Your task to perform on an android device: Go to internet settings Image 0: 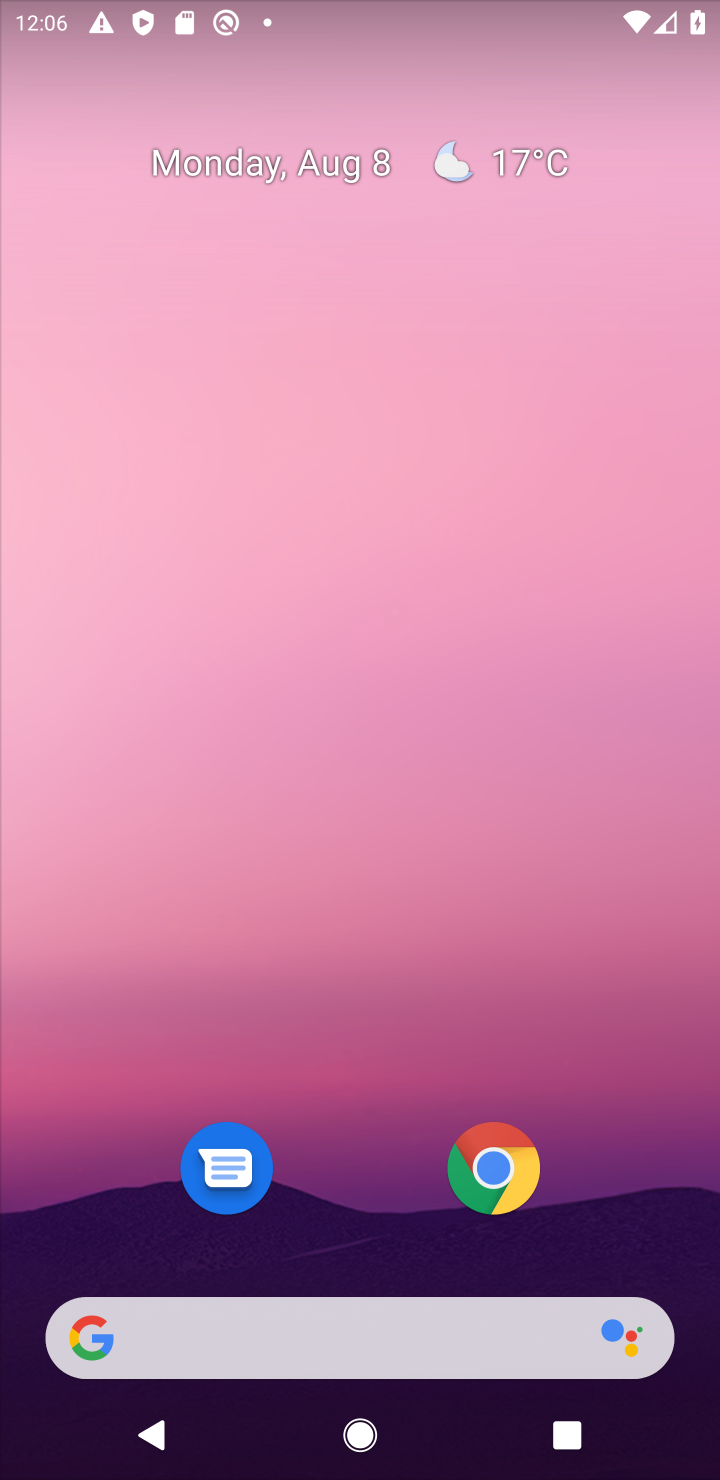
Step 0: drag from (46, 1351) to (331, 612)
Your task to perform on an android device: Go to internet settings Image 1: 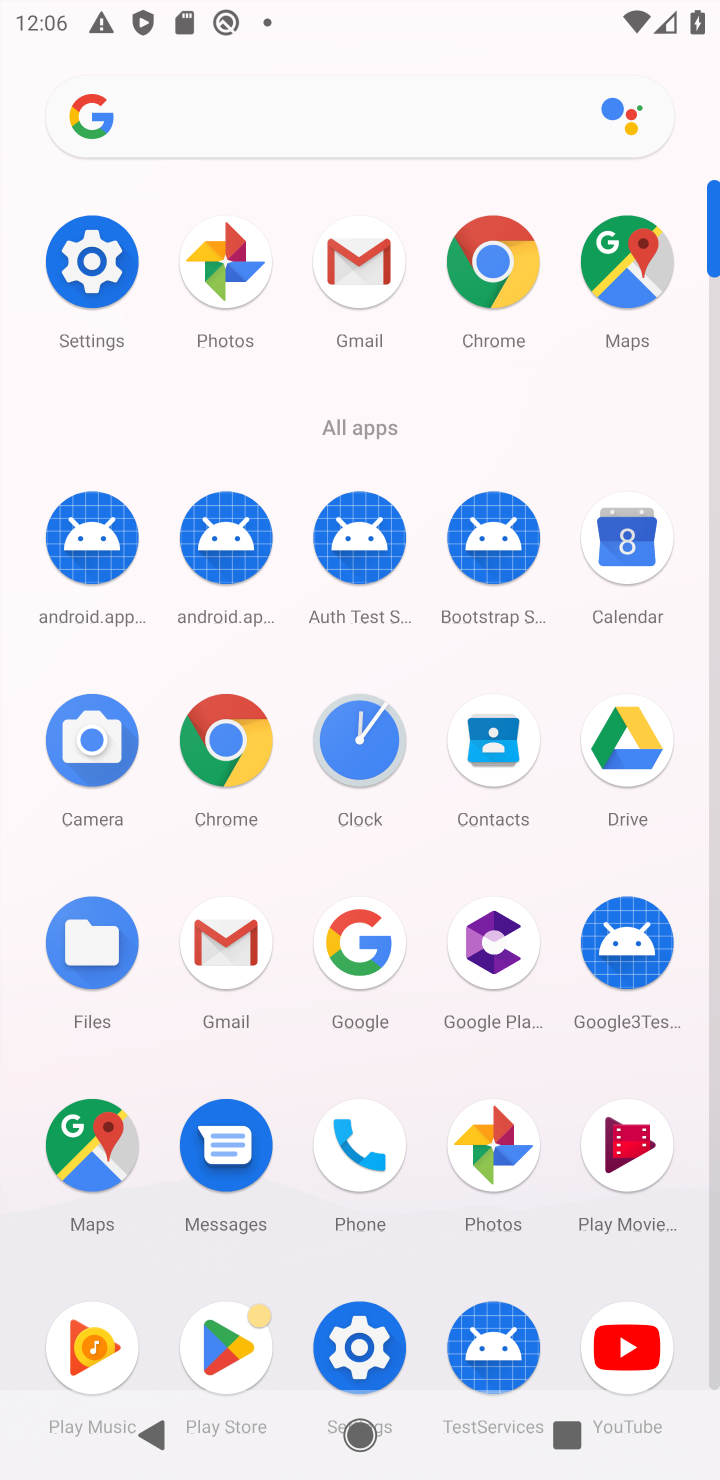
Step 1: click (377, 1347)
Your task to perform on an android device: Go to internet settings Image 2: 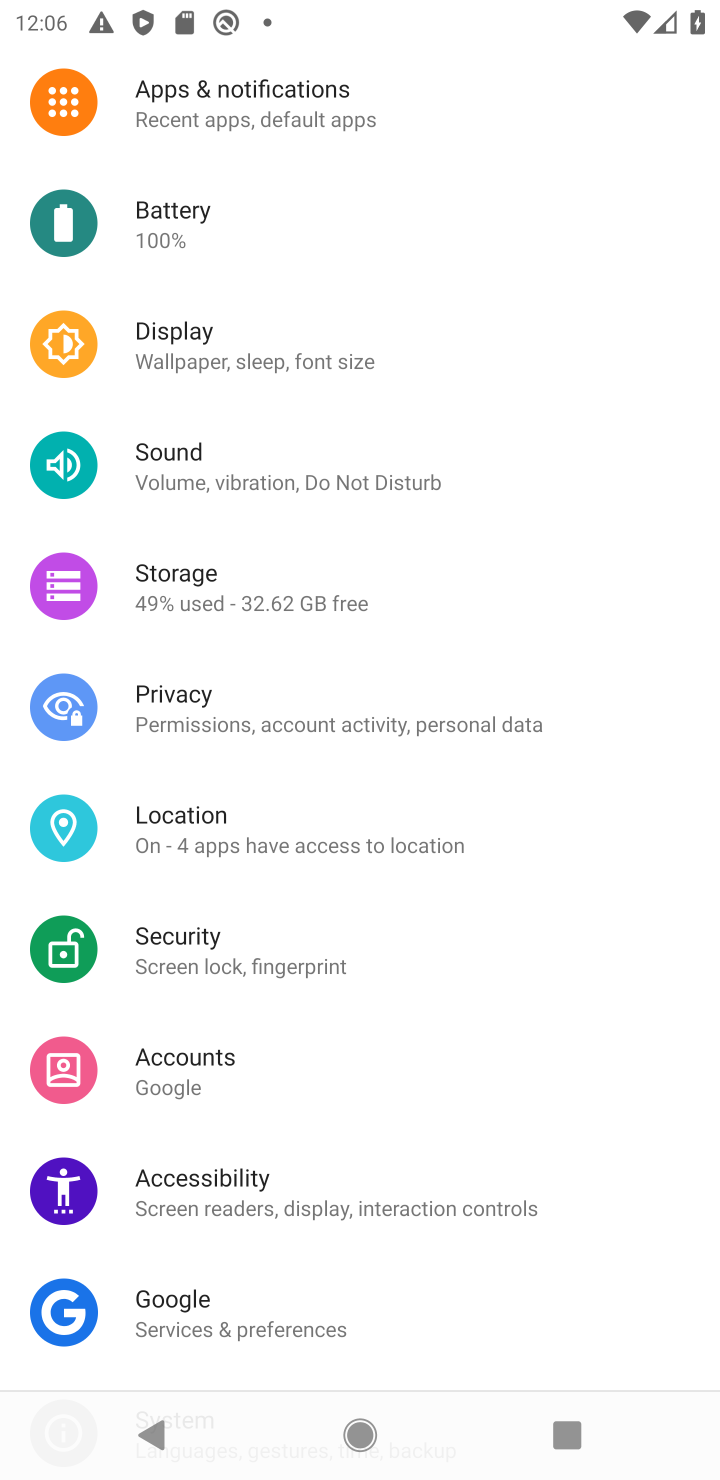
Step 2: drag from (537, 185) to (586, 1288)
Your task to perform on an android device: Go to internet settings Image 3: 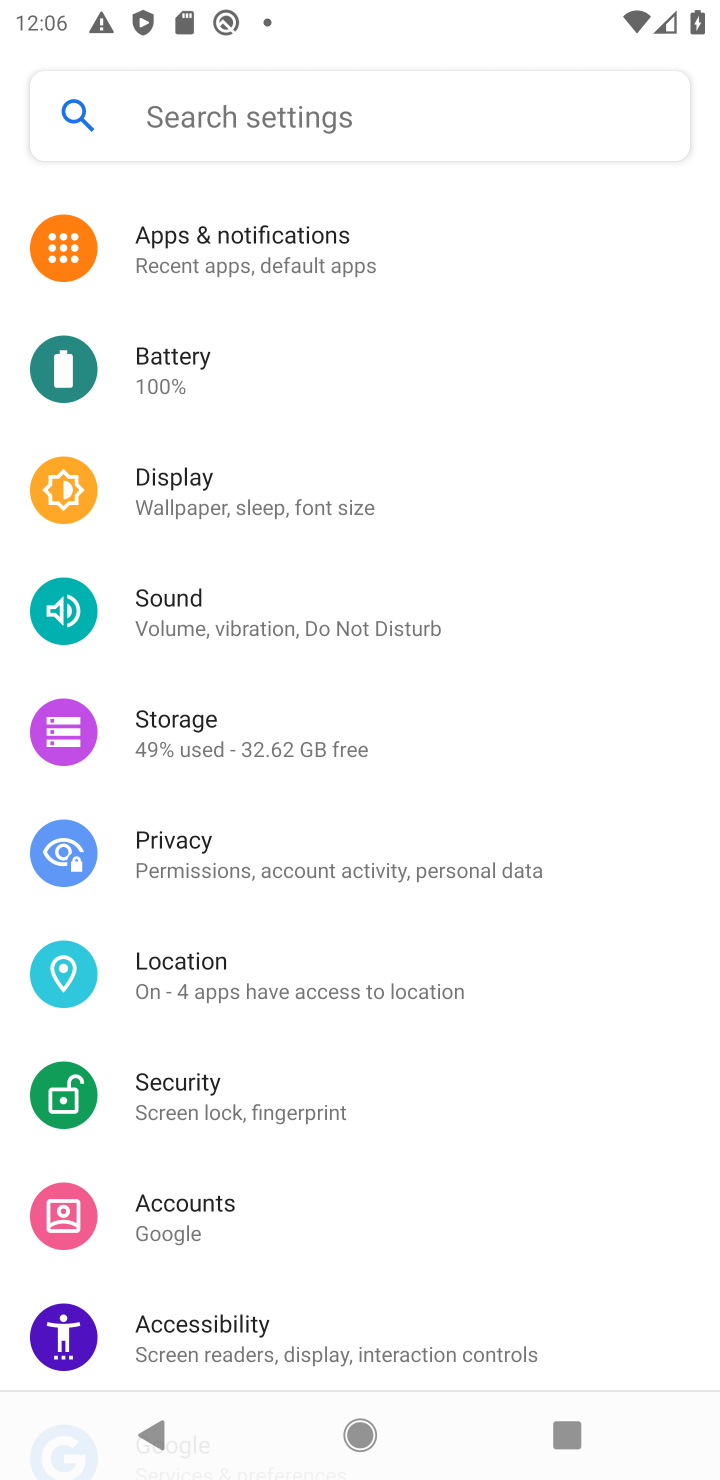
Step 3: drag from (435, 229) to (367, 1036)
Your task to perform on an android device: Go to internet settings Image 4: 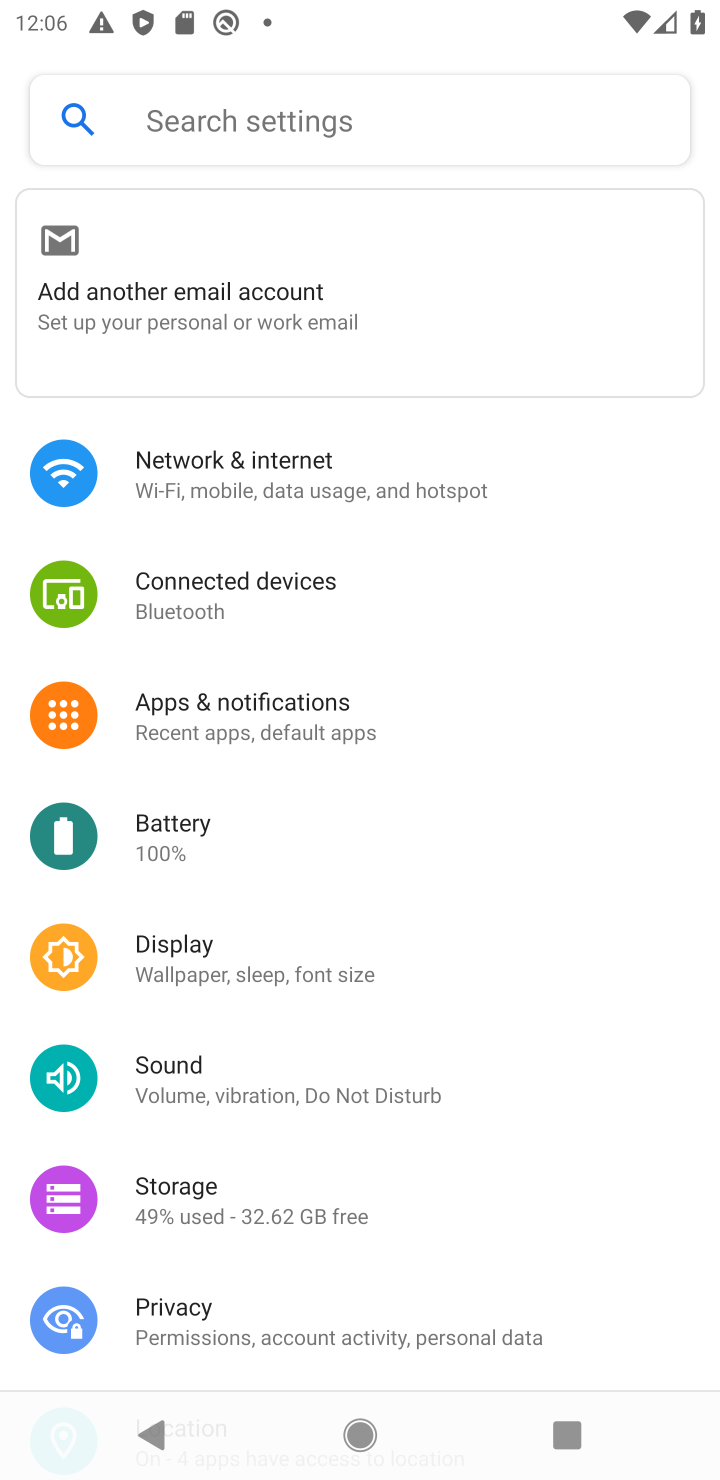
Step 4: click (207, 450)
Your task to perform on an android device: Go to internet settings Image 5: 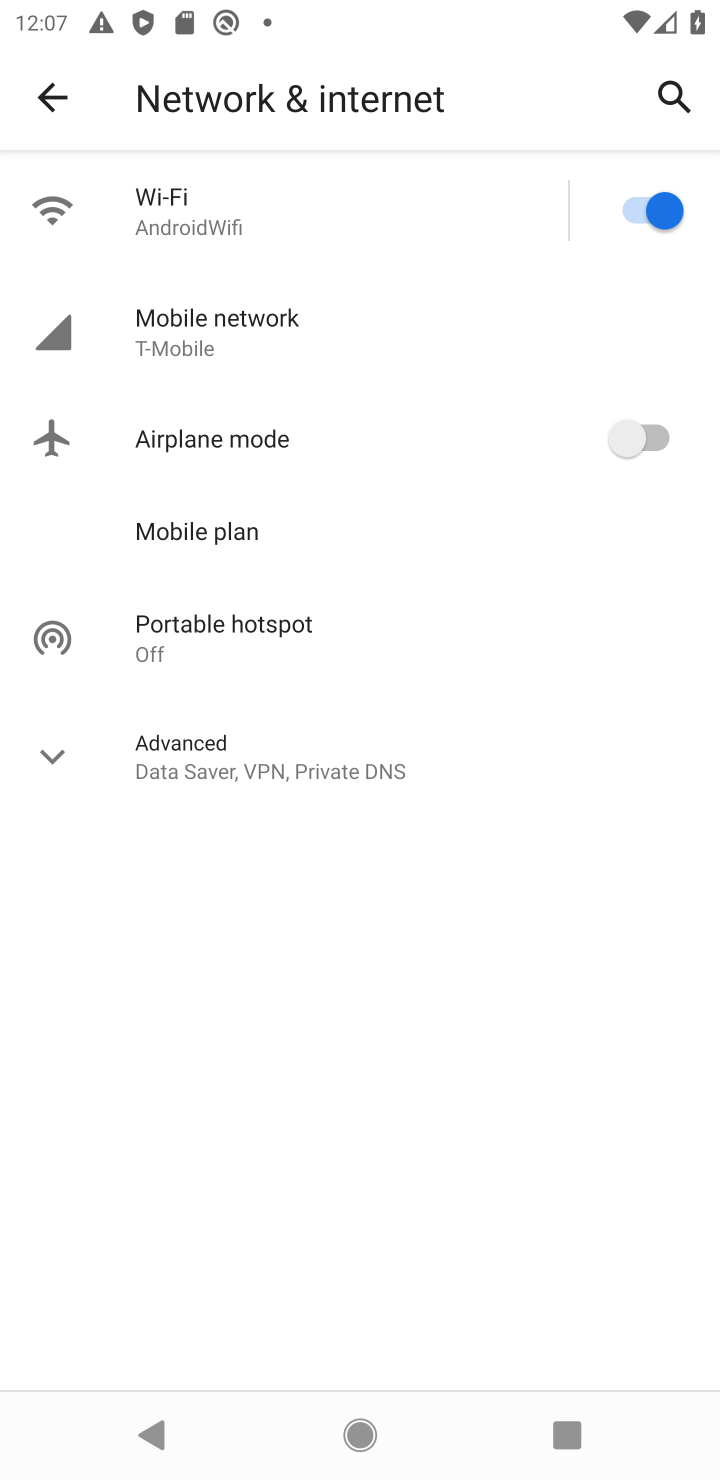
Step 5: task complete